Your task to perform on an android device: empty trash in google photos Image 0: 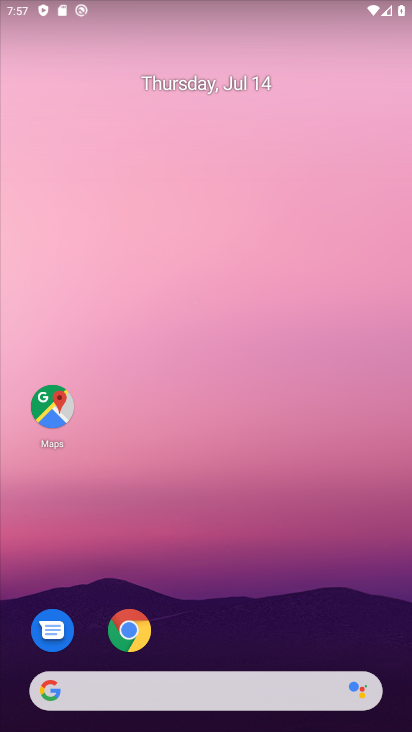
Step 0: drag from (268, 651) to (268, 198)
Your task to perform on an android device: empty trash in google photos Image 1: 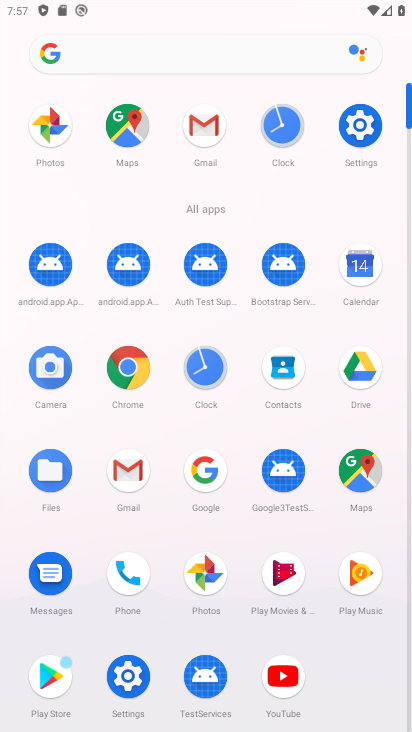
Step 1: click (50, 121)
Your task to perform on an android device: empty trash in google photos Image 2: 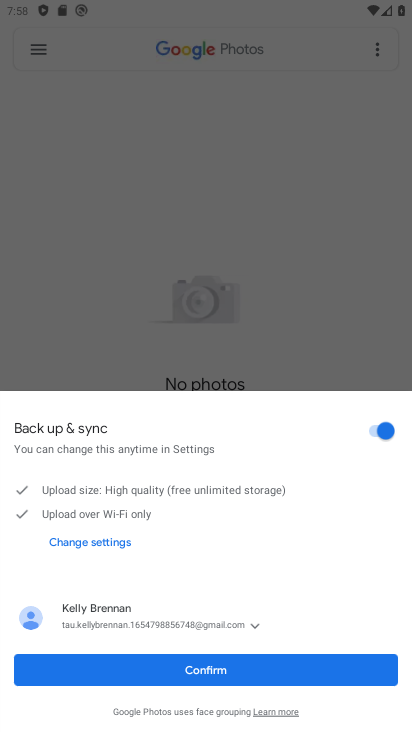
Step 2: click (138, 664)
Your task to perform on an android device: empty trash in google photos Image 3: 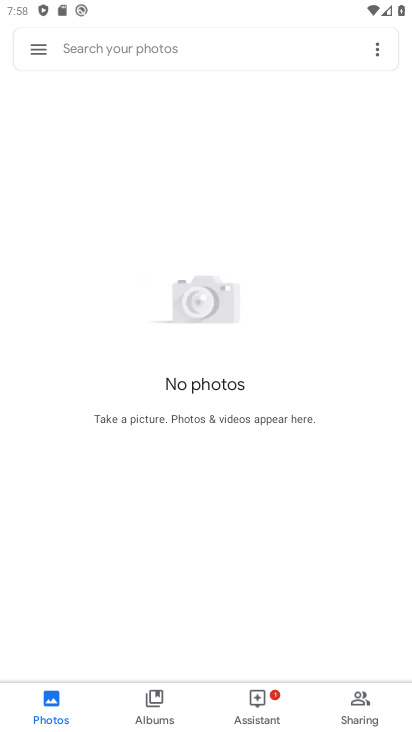
Step 3: click (39, 48)
Your task to perform on an android device: empty trash in google photos Image 4: 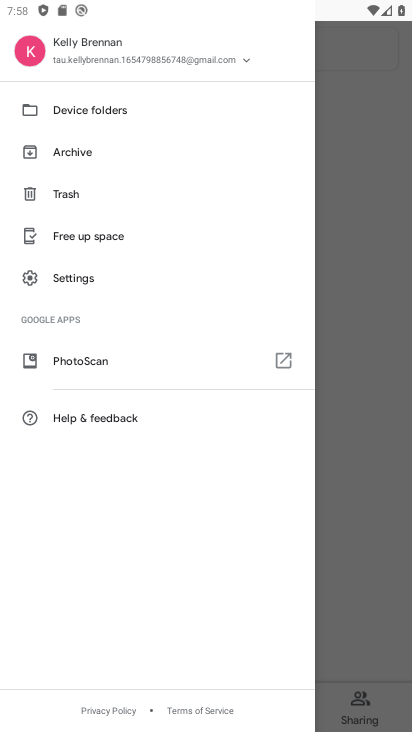
Step 4: click (113, 192)
Your task to perform on an android device: empty trash in google photos Image 5: 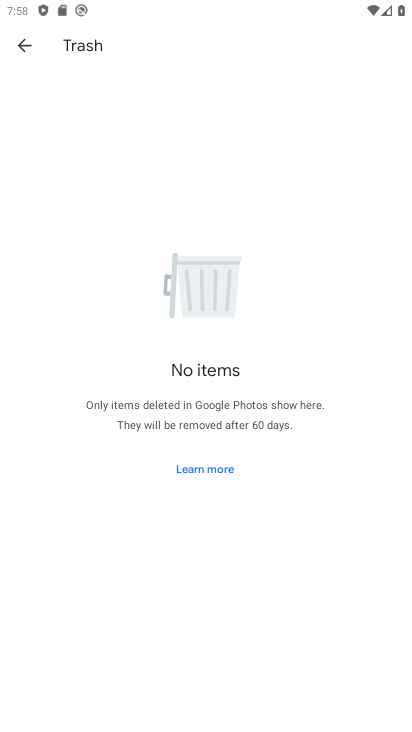
Step 5: task complete